Your task to perform on an android device: Show me popular games on the Play Store Image 0: 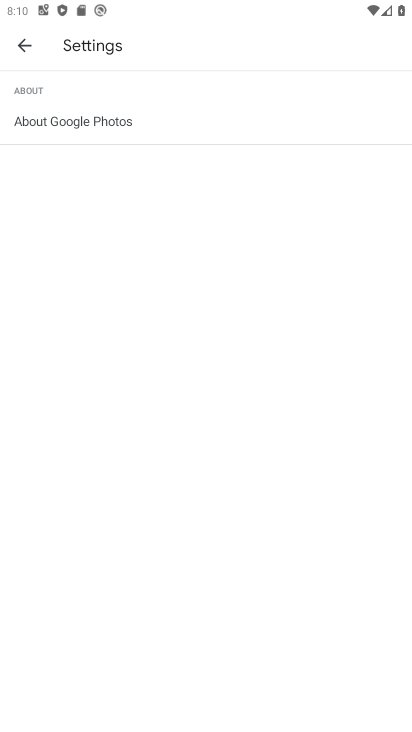
Step 0: press back button
Your task to perform on an android device: Show me popular games on the Play Store Image 1: 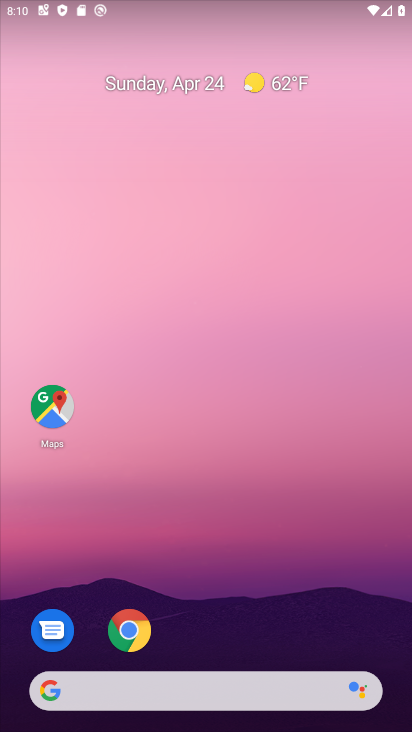
Step 1: drag from (236, 590) to (211, 55)
Your task to perform on an android device: Show me popular games on the Play Store Image 2: 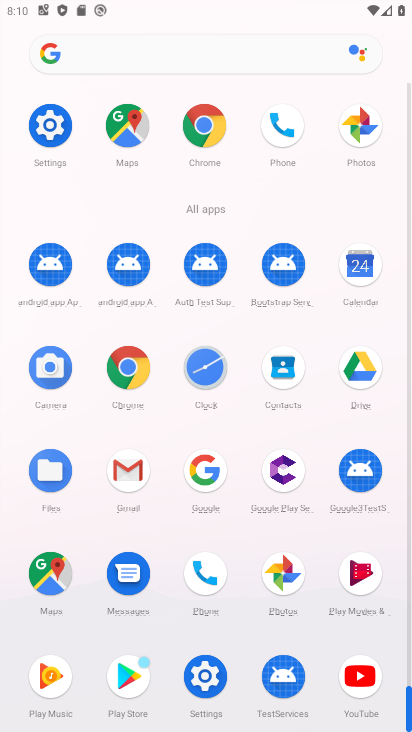
Step 2: drag from (10, 592) to (28, 336)
Your task to perform on an android device: Show me popular games on the Play Store Image 3: 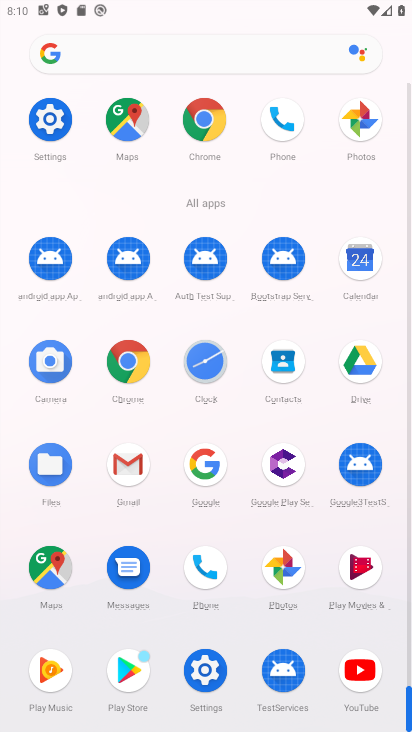
Step 3: click (121, 677)
Your task to perform on an android device: Show me popular games on the Play Store Image 4: 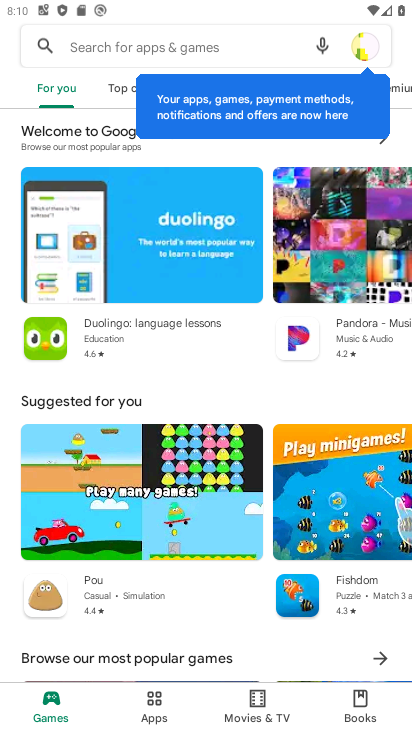
Step 4: task complete